Your task to perform on an android device: Go to location settings Image 0: 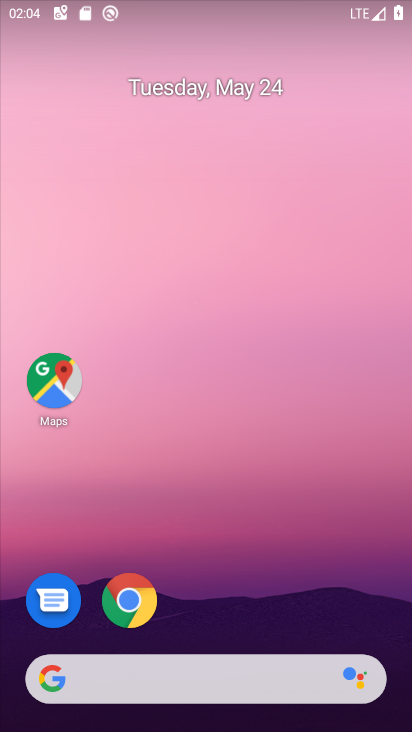
Step 0: drag from (285, 594) to (238, 308)
Your task to perform on an android device: Go to location settings Image 1: 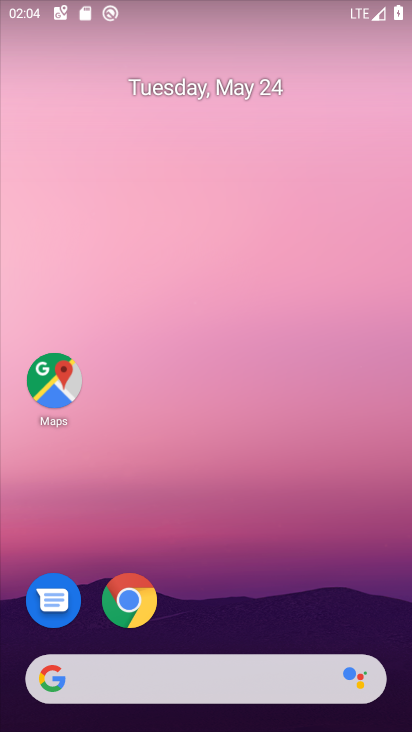
Step 1: drag from (238, 592) to (148, 70)
Your task to perform on an android device: Go to location settings Image 2: 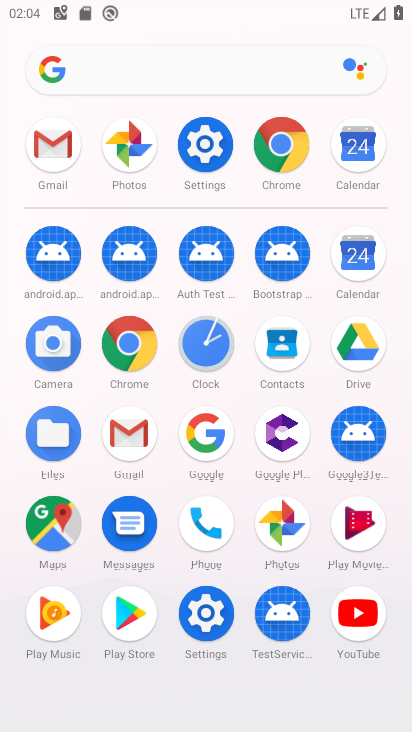
Step 2: click (197, 144)
Your task to perform on an android device: Go to location settings Image 3: 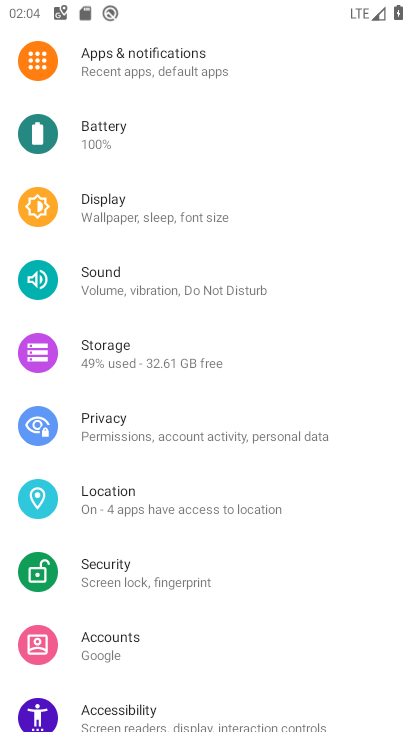
Step 3: click (154, 496)
Your task to perform on an android device: Go to location settings Image 4: 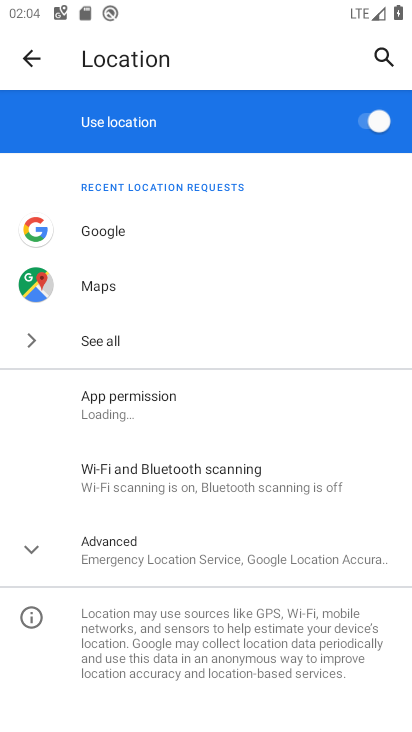
Step 4: task complete